Your task to perform on an android device: Turn on the flashlight Image 0: 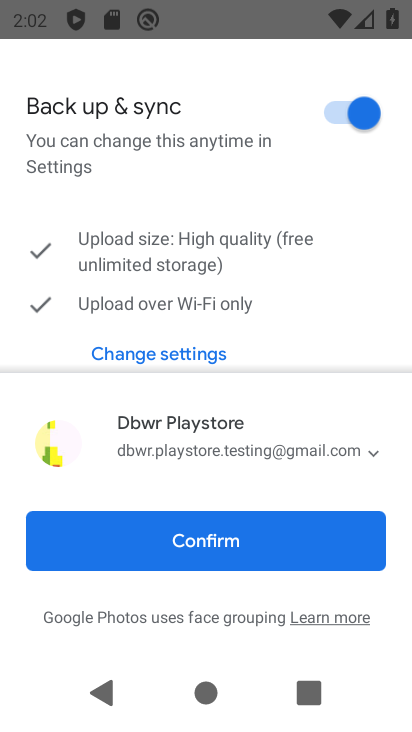
Step 0: press home button
Your task to perform on an android device: Turn on the flashlight Image 1: 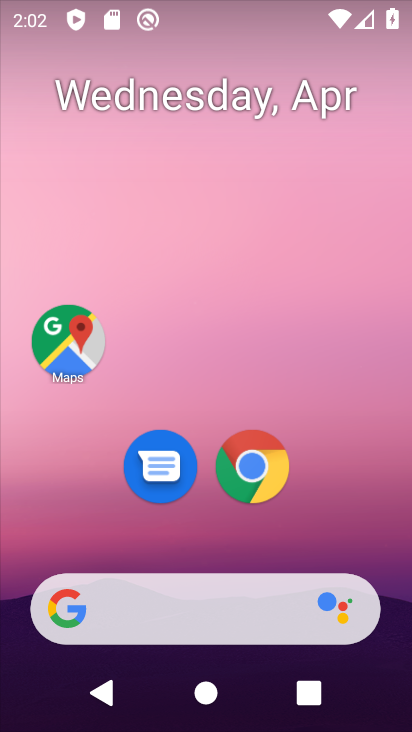
Step 1: drag from (325, 539) to (332, 210)
Your task to perform on an android device: Turn on the flashlight Image 2: 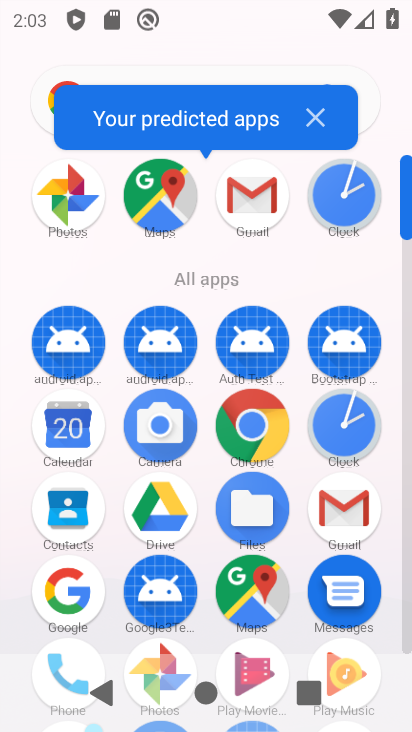
Step 2: drag from (213, 578) to (248, 269)
Your task to perform on an android device: Turn on the flashlight Image 3: 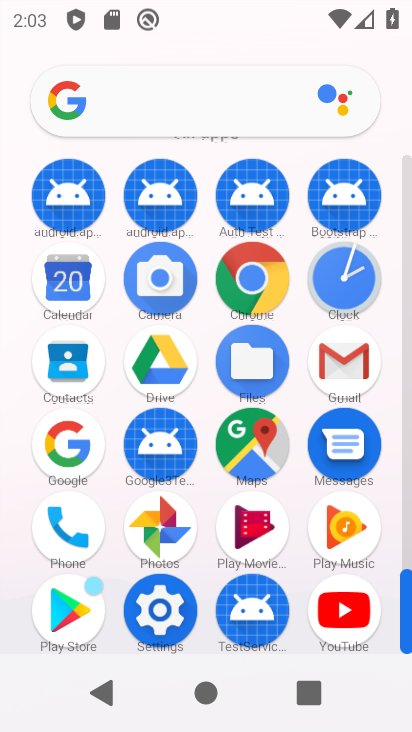
Step 3: click (157, 614)
Your task to perform on an android device: Turn on the flashlight Image 4: 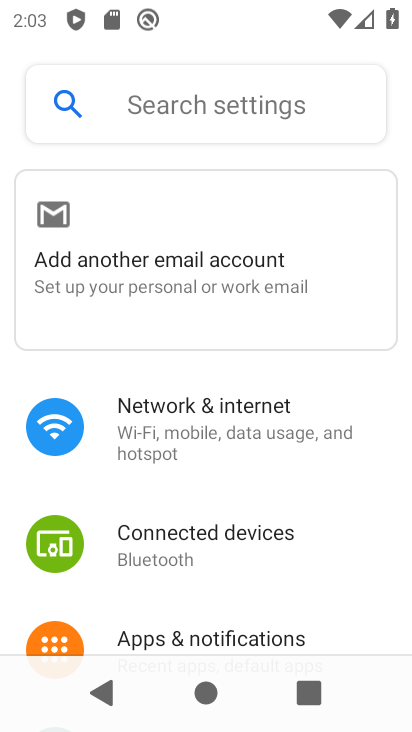
Step 4: task complete